Your task to perform on an android device: set default search engine in the chrome app Image 0: 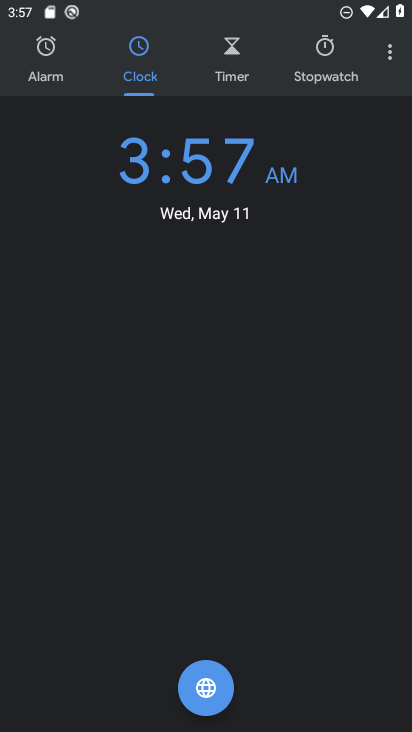
Step 0: press home button
Your task to perform on an android device: set default search engine in the chrome app Image 1: 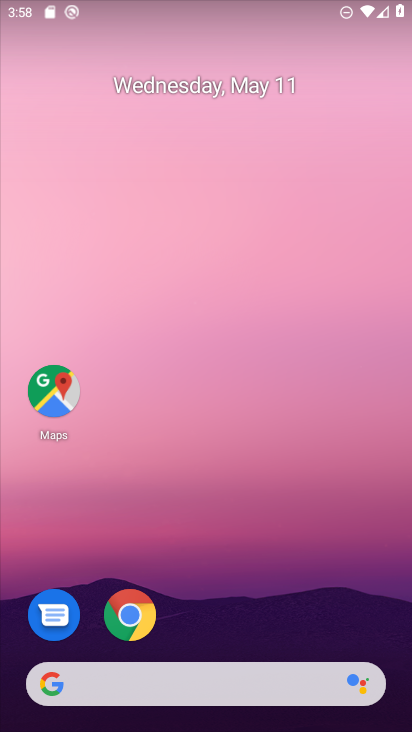
Step 1: click (144, 612)
Your task to perform on an android device: set default search engine in the chrome app Image 2: 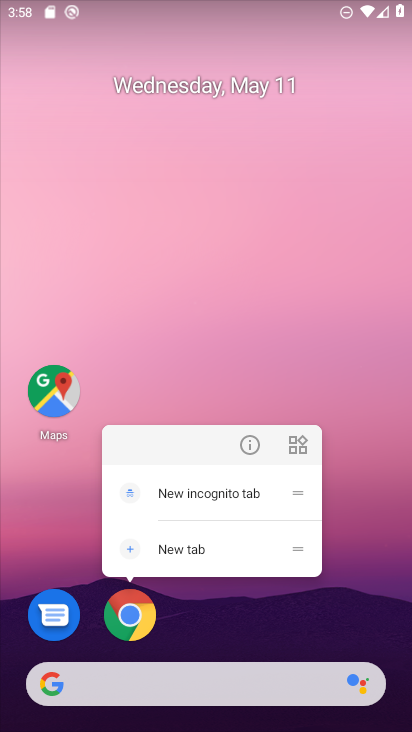
Step 2: click (119, 632)
Your task to perform on an android device: set default search engine in the chrome app Image 3: 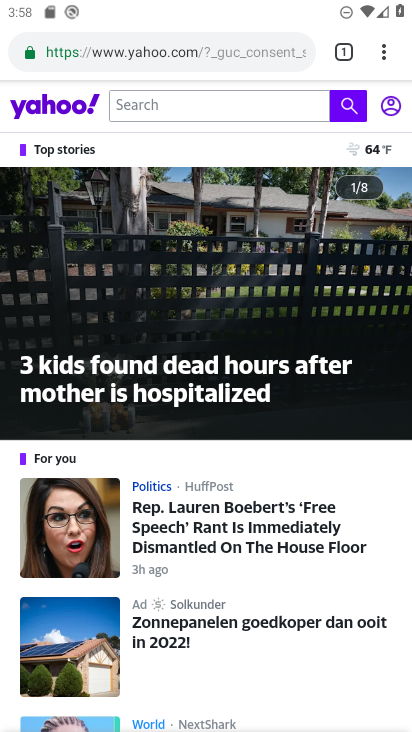
Step 3: click (386, 43)
Your task to perform on an android device: set default search engine in the chrome app Image 4: 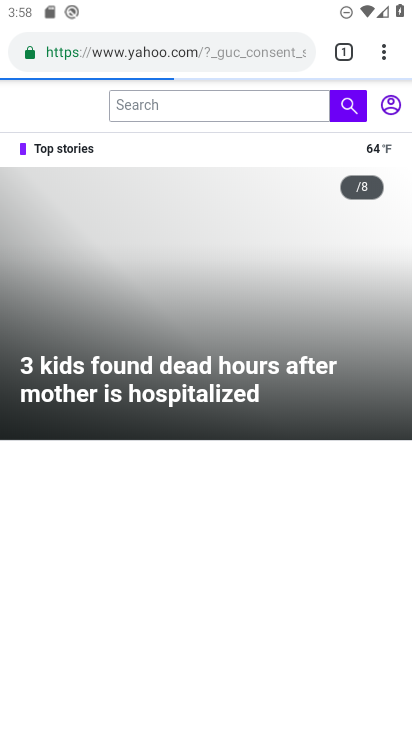
Step 4: click (387, 47)
Your task to perform on an android device: set default search engine in the chrome app Image 5: 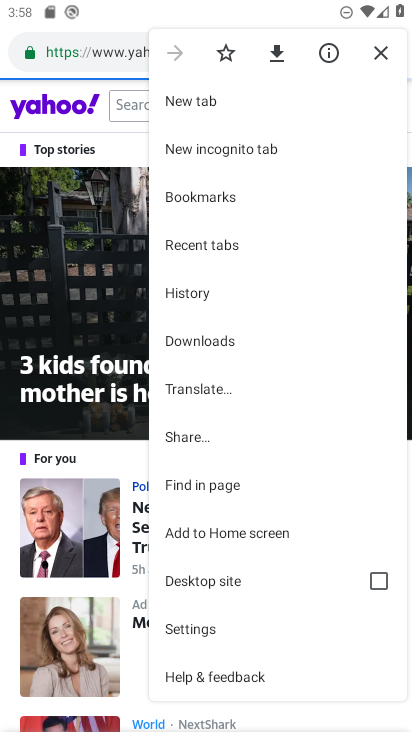
Step 5: click (229, 619)
Your task to perform on an android device: set default search engine in the chrome app Image 6: 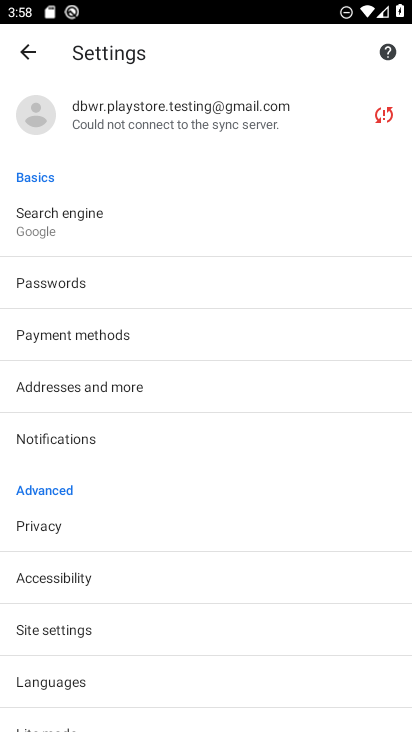
Step 6: click (176, 223)
Your task to perform on an android device: set default search engine in the chrome app Image 7: 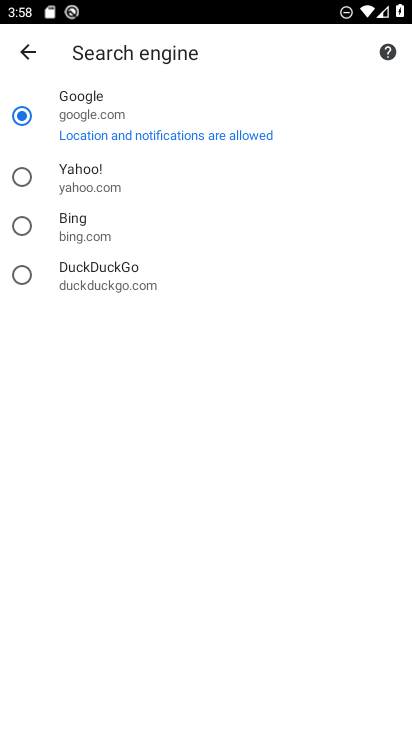
Step 7: task complete